Your task to perform on an android device: turn vacation reply on in the gmail app Image 0: 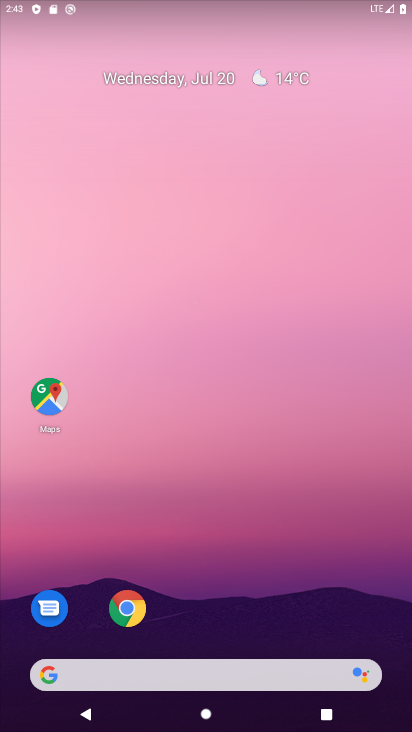
Step 0: drag from (215, 622) to (265, 9)
Your task to perform on an android device: turn vacation reply on in the gmail app Image 1: 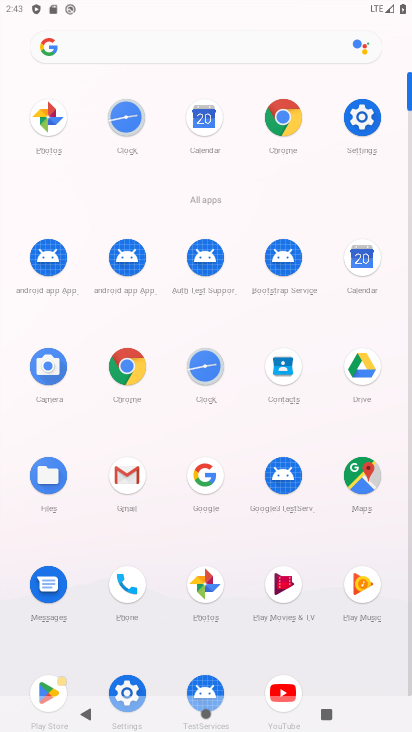
Step 1: click (135, 487)
Your task to perform on an android device: turn vacation reply on in the gmail app Image 2: 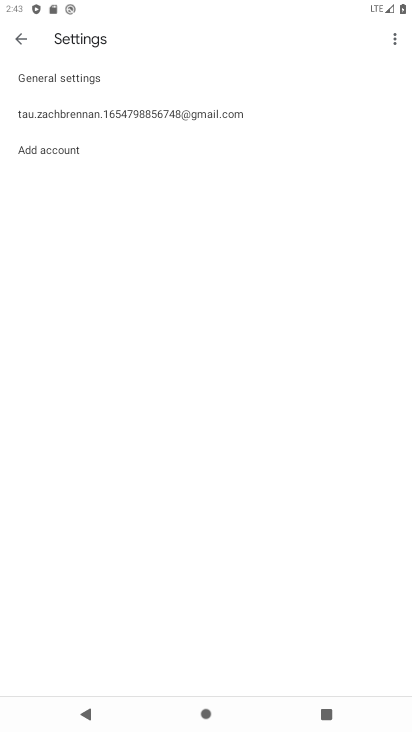
Step 2: click (69, 120)
Your task to perform on an android device: turn vacation reply on in the gmail app Image 3: 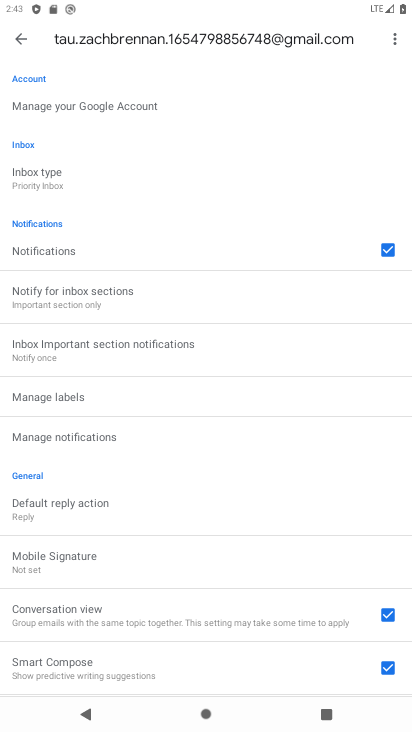
Step 3: drag from (152, 586) to (100, 264)
Your task to perform on an android device: turn vacation reply on in the gmail app Image 4: 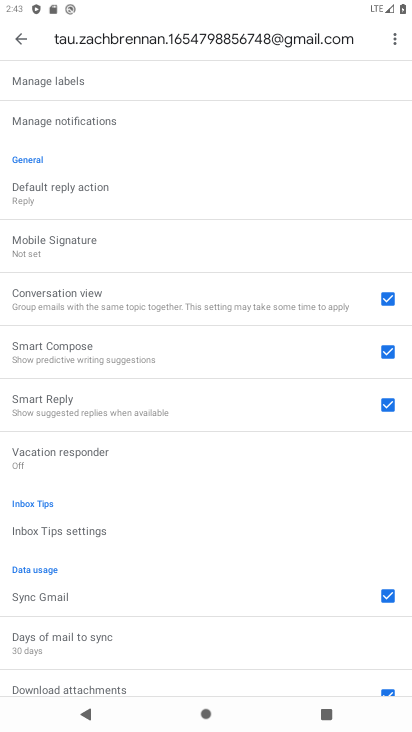
Step 4: click (67, 445)
Your task to perform on an android device: turn vacation reply on in the gmail app Image 5: 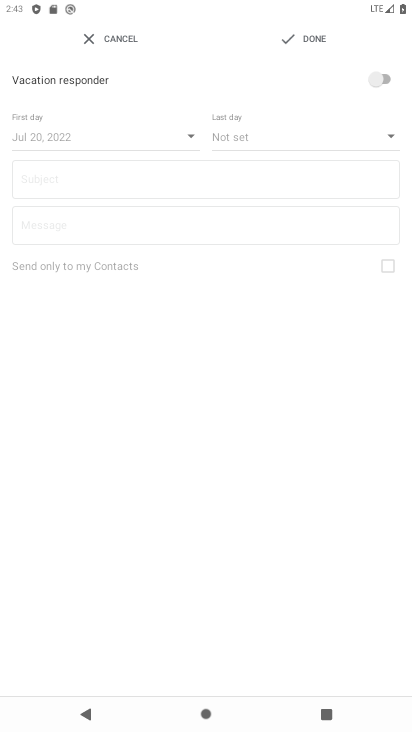
Step 5: click (376, 85)
Your task to perform on an android device: turn vacation reply on in the gmail app Image 6: 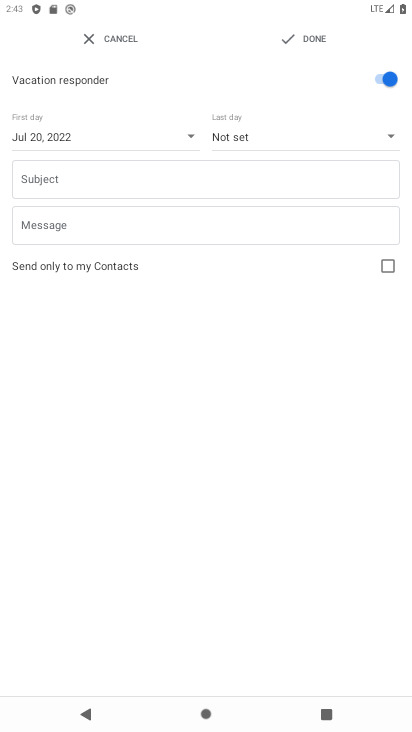
Step 6: click (314, 28)
Your task to perform on an android device: turn vacation reply on in the gmail app Image 7: 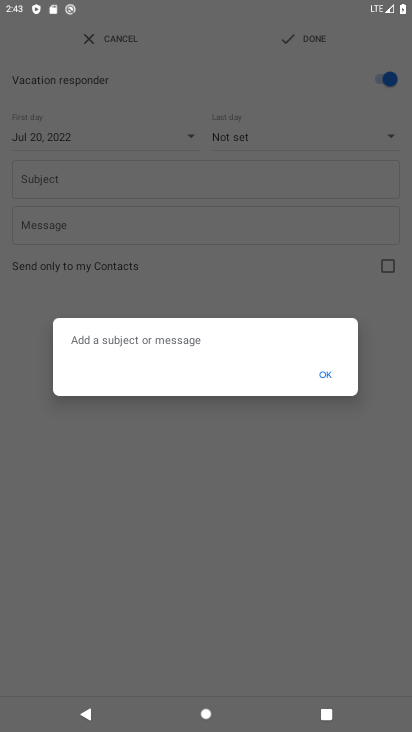
Step 7: click (323, 371)
Your task to perform on an android device: turn vacation reply on in the gmail app Image 8: 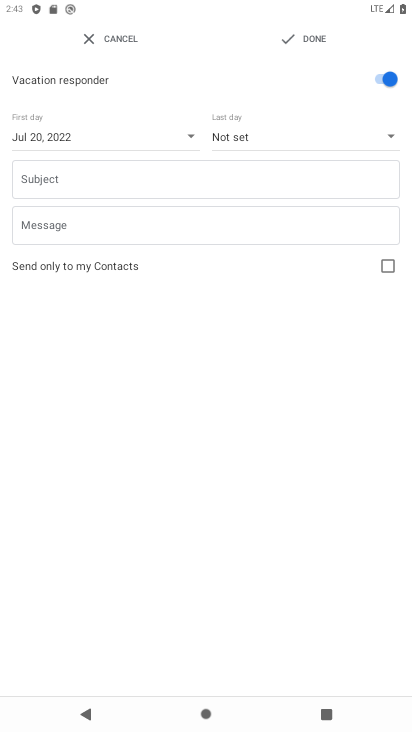
Step 8: click (315, 45)
Your task to perform on an android device: turn vacation reply on in the gmail app Image 9: 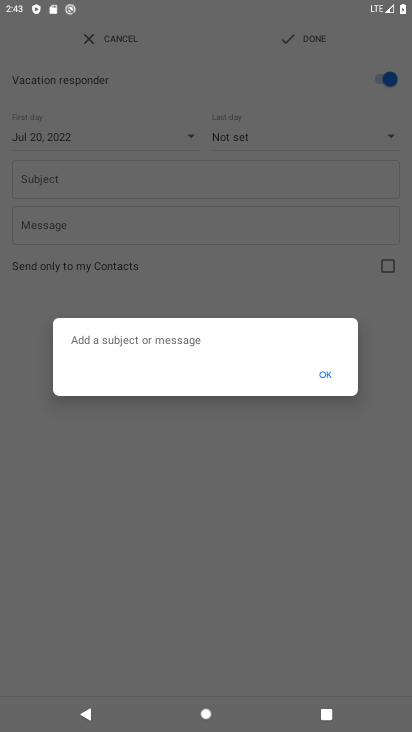
Step 9: task complete